Your task to perform on an android device: Search for Mexican restaurants on Maps Image 0: 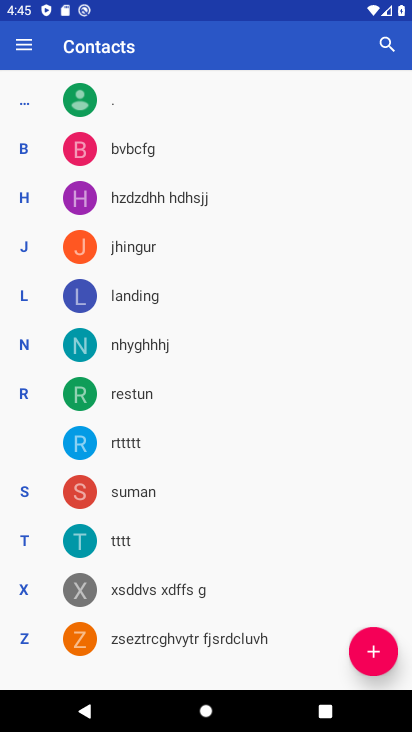
Step 0: press home button
Your task to perform on an android device: Search for Mexican restaurants on Maps Image 1: 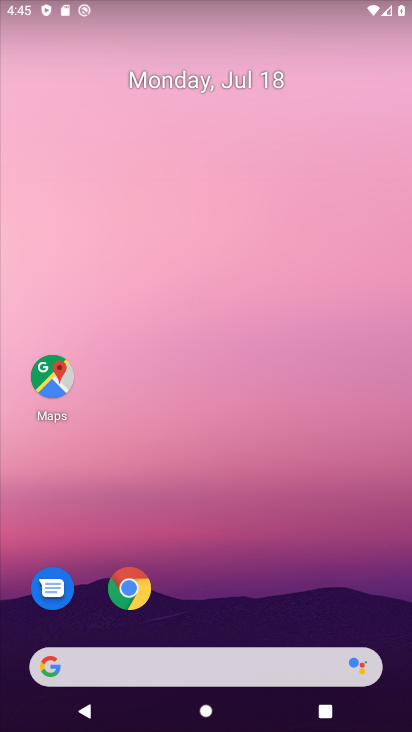
Step 1: click (58, 370)
Your task to perform on an android device: Search for Mexican restaurants on Maps Image 2: 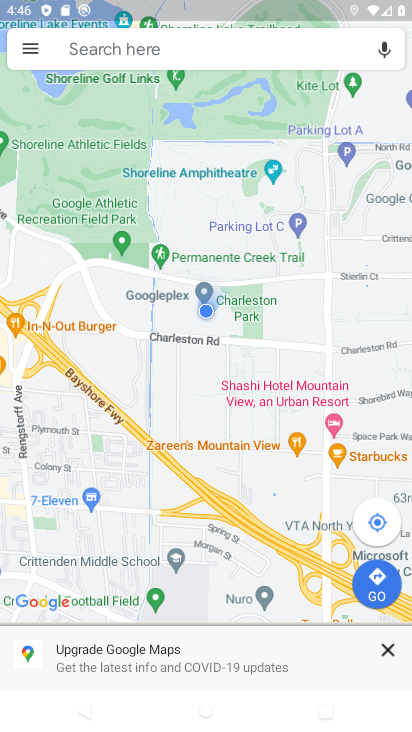
Step 2: click (156, 47)
Your task to perform on an android device: Search for Mexican restaurants on Maps Image 3: 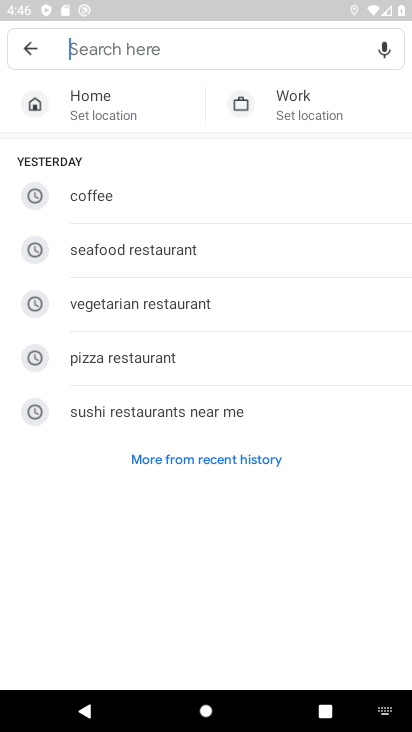
Step 3: type "Mexican restaurants"
Your task to perform on an android device: Search for Mexican restaurants on Maps Image 4: 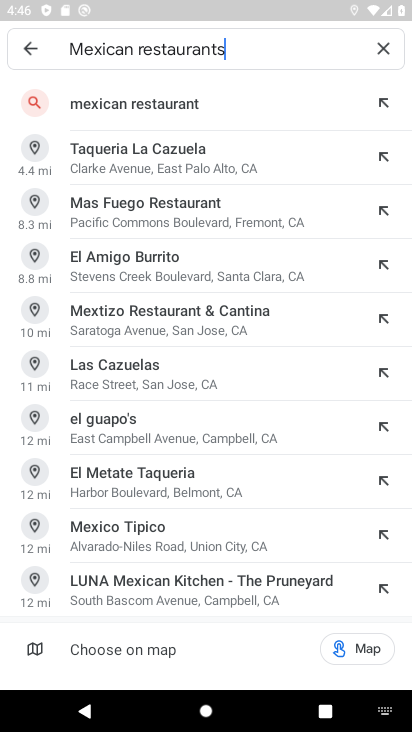
Step 4: click (232, 95)
Your task to perform on an android device: Search for Mexican restaurants on Maps Image 5: 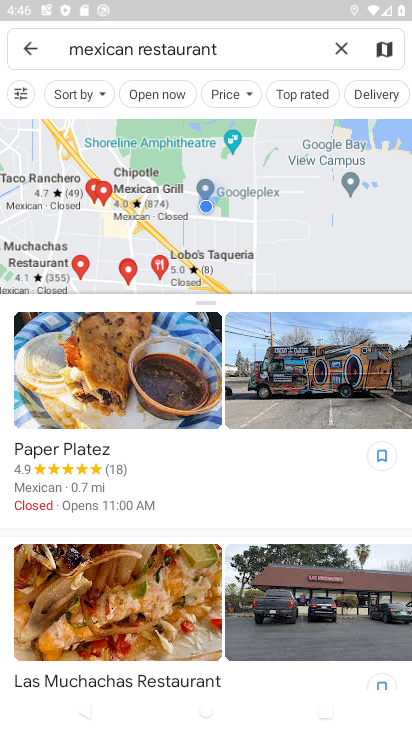
Step 5: task complete